Your task to perform on an android device: open a new tab in the chrome app Image 0: 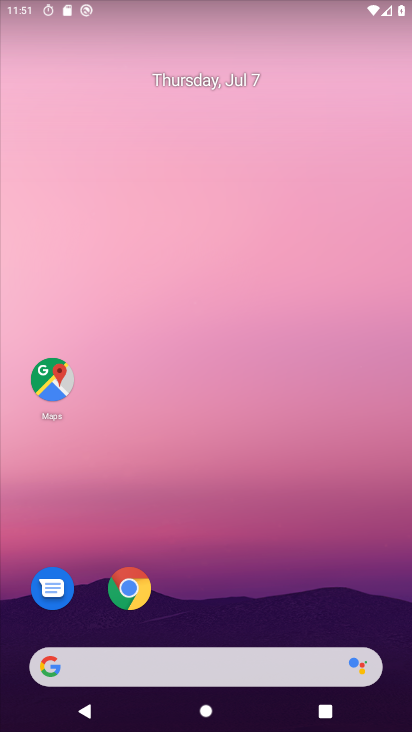
Step 0: press home button
Your task to perform on an android device: open a new tab in the chrome app Image 1: 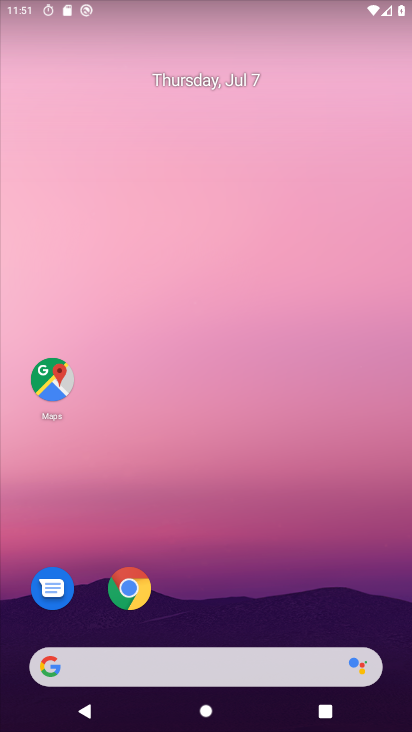
Step 1: click (134, 583)
Your task to perform on an android device: open a new tab in the chrome app Image 2: 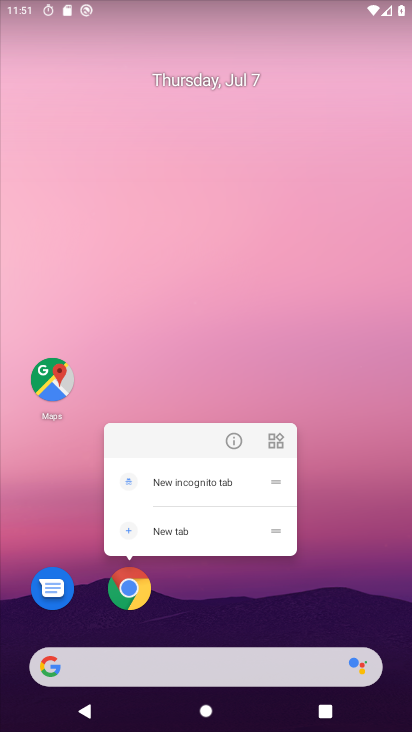
Step 2: click (128, 591)
Your task to perform on an android device: open a new tab in the chrome app Image 3: 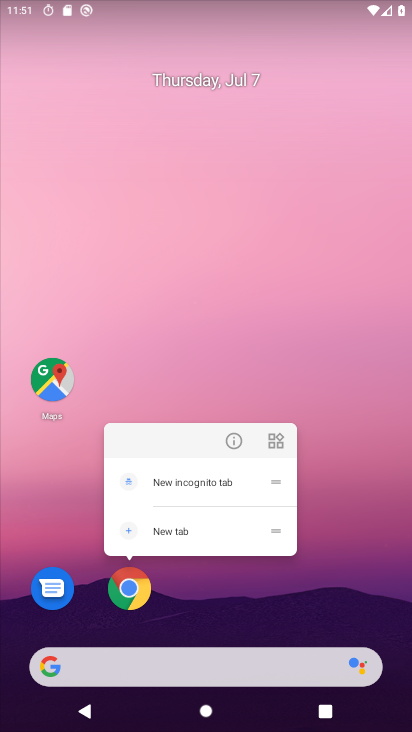
Step 3: click (128, 590)
Your task to perform on an android device: open a new tab in the chrome app Image 4: 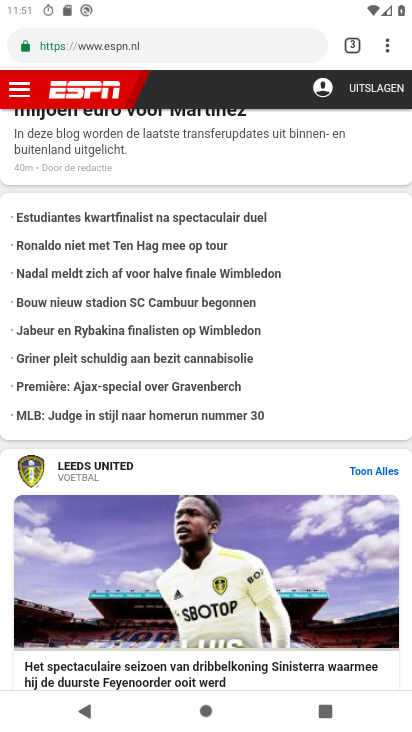
Step 4: task complete